Your task to perform on an android device: Open ESPN.com Image 0: 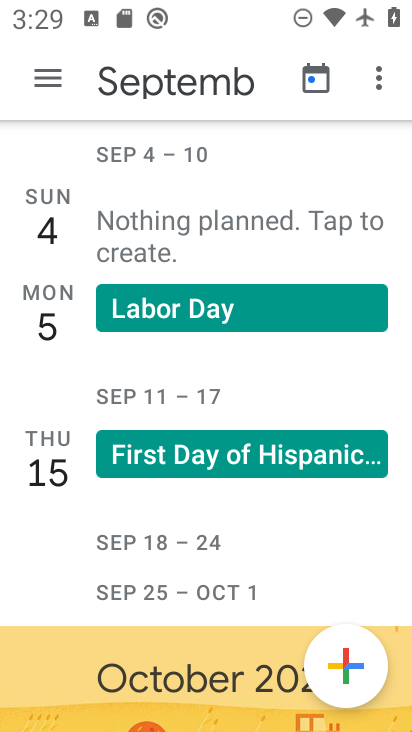
Step 0: press home button
Your task to perform on an android device: Open ESPN.com Image 1: 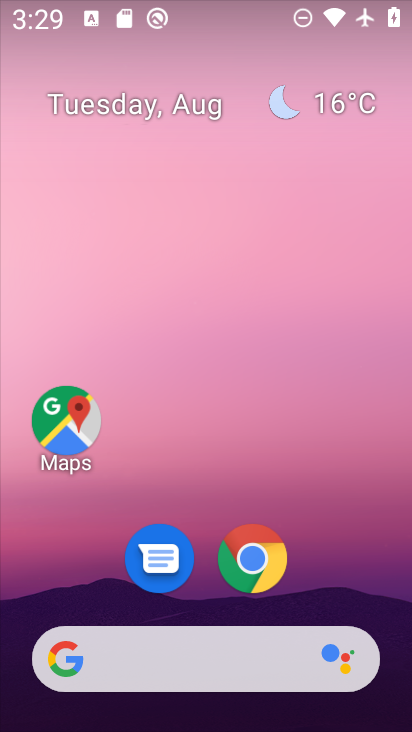
Step 1: click (253, 541)
Your task to perform on an android device: Open ESPN.com Image 2: 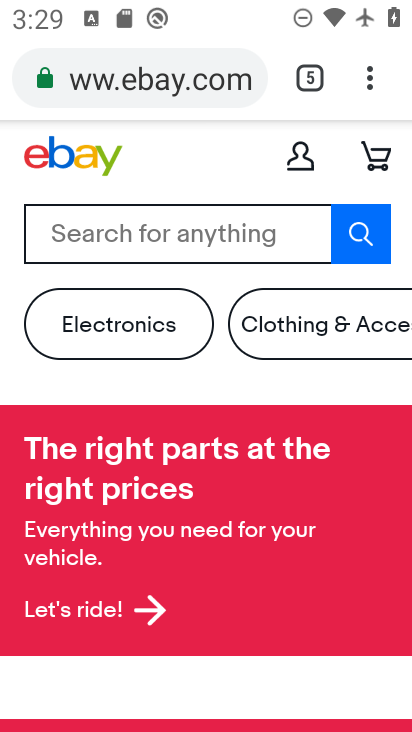
Step 2: click (307, 76)
Your task to perform on an android device: Open ESPN.com Image 3: 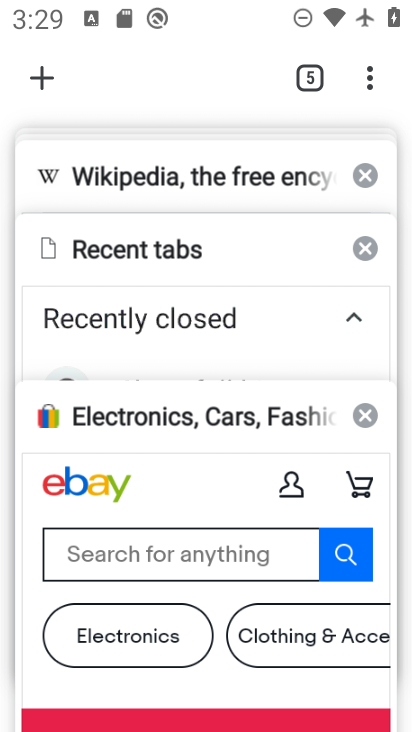
Step 3: click (38, 72)
Your task to perform on an android device: Open ESPN.com Image 4: 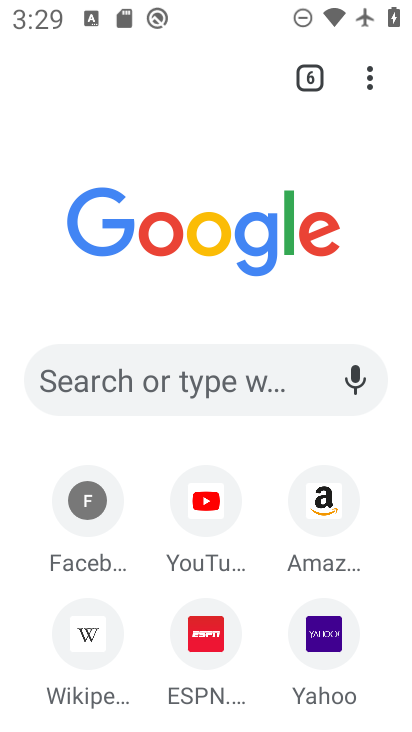
Step 4: click (206, 616)
Your task to perform on an android device: Open ESPN.com Image 5: 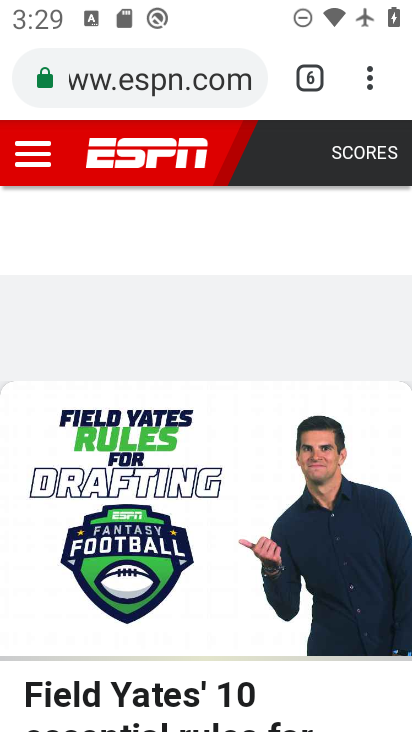
Step 5: task complete